Your task to perform on an android device: set default search engine in the chrome app Image 0: 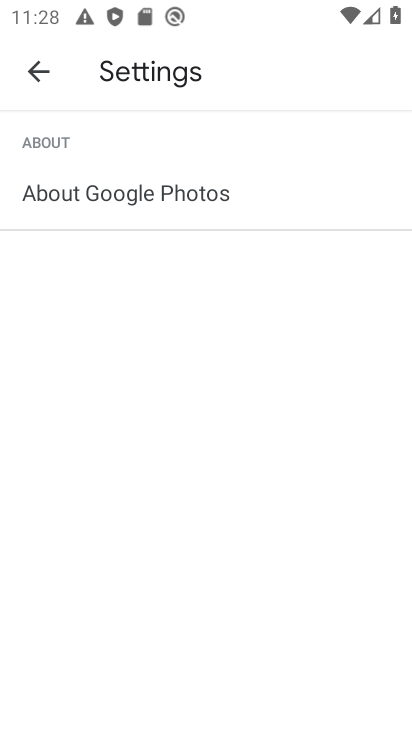
Step 0: press home button
Your task to perform on an android device: set default search engine in the chrome app Image 1: 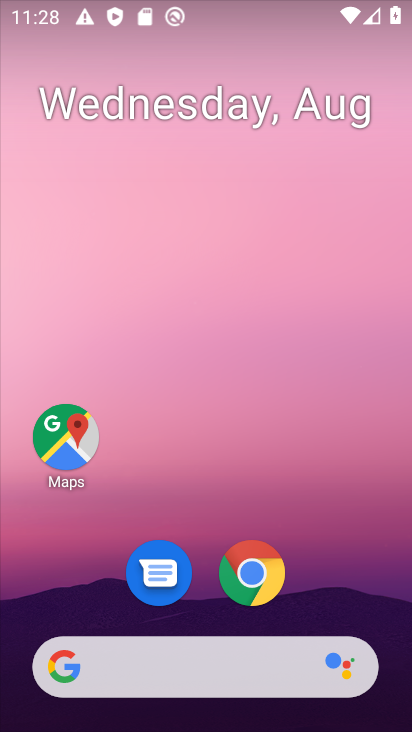
Step 1: drag from (382, 556) to (334, 21)
Your task to perform on an android device: set default search engine in the chrome app Image 2: 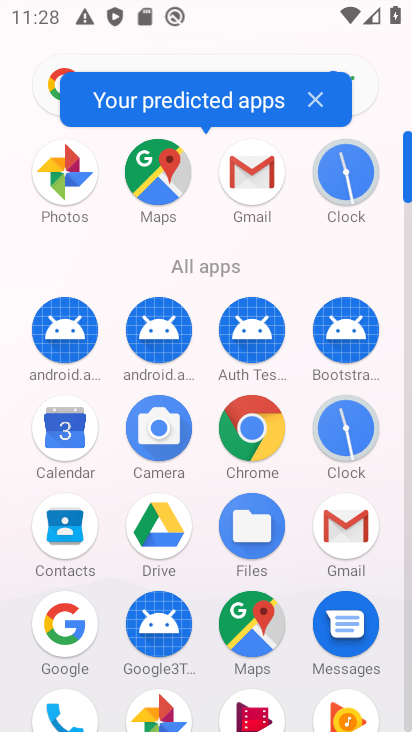
Step 2: click (249, 435)
Your task to perform on an android device: set default search engine in the chrome app Image 3: 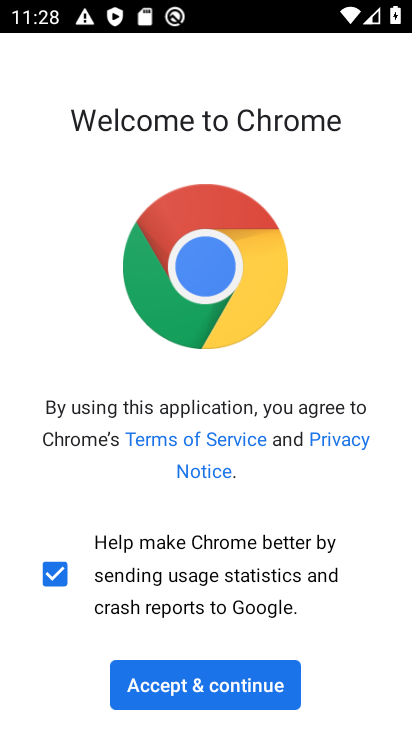
Step 3: click (229, 679)
Your task to perform on an android device: set default search engine in the chrome app Image 4: 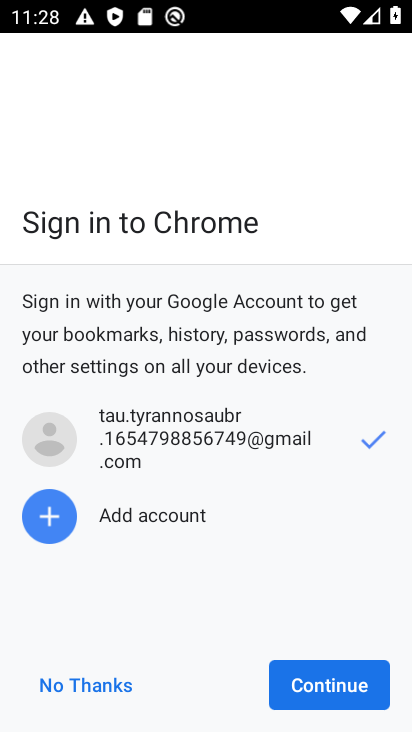
Step 4: click (296, 680)
Your task to perform on an android device: set default search engine in the chrome app Image 5: 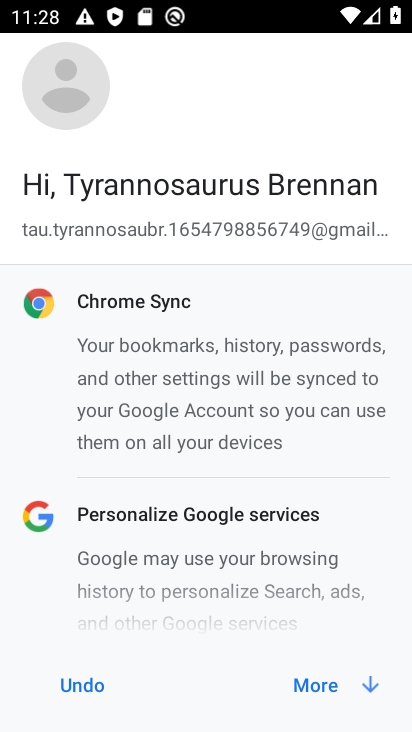
Step 5: click (350, 679)
Your task to perform on an android device: set default search engine in the chrome app Image 6: 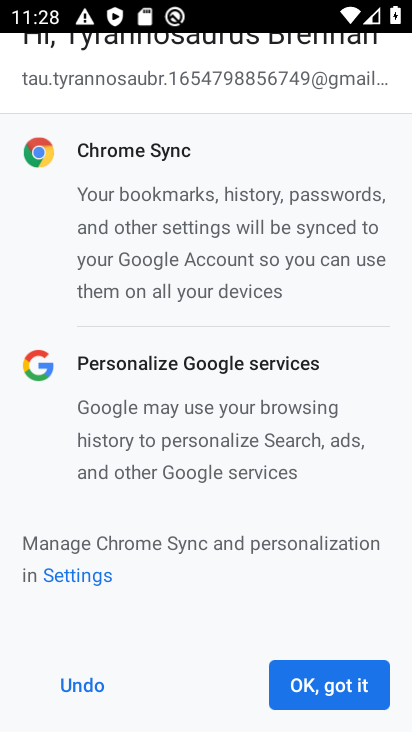
Step 6: click (352, 684)
Your task to perform on an android device: set default search engine in the chrome app Image 7: 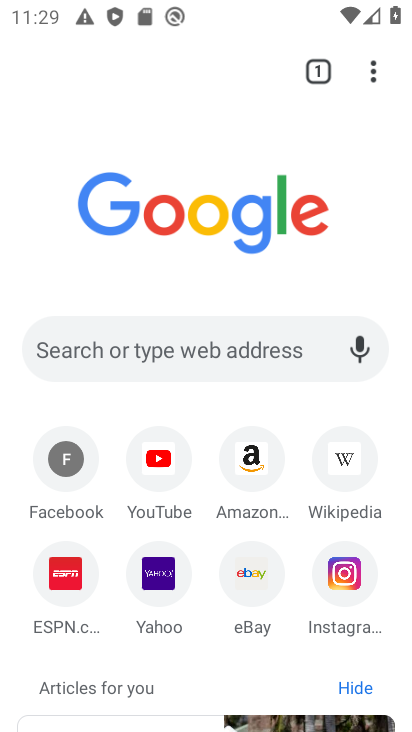
Step 7: drag from (380, 60) to (108, 612)
Your task to perform on an android device: set default search engine in the chrome app Image 8: 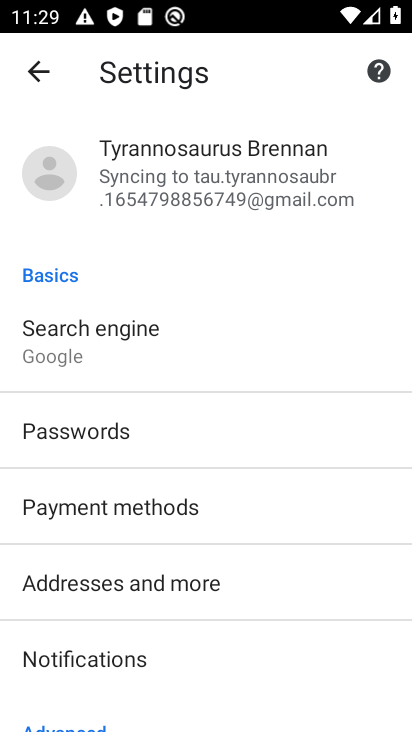
Step 8: click (226, 339)
Your task to perform on an android device: set default search engine in the chrome app Image 9: 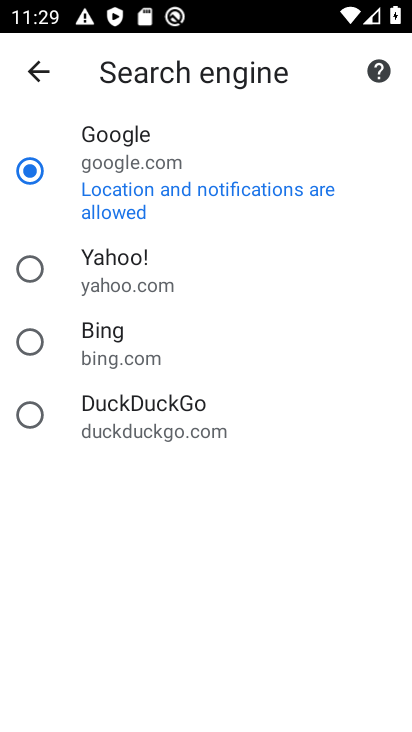
Step 9: task complete